Your task to perform on an android device: delete browsing data in the chrome app Image 0: 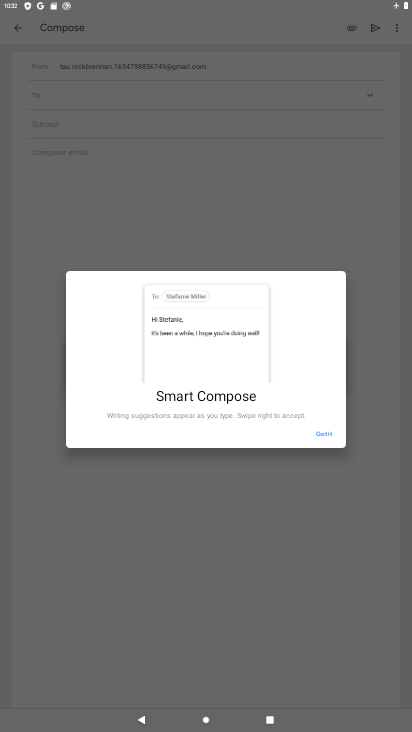
Step 0: press home button
Your task to perform on an android device: delete browsing data in the chrome app Image 1: 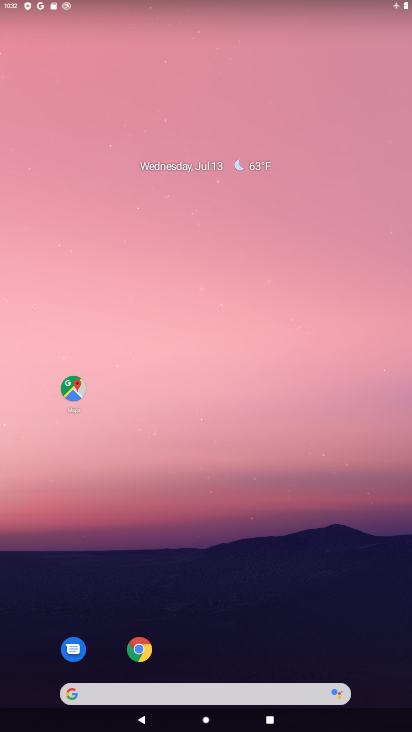
Step 1: drag from (195, 626) to (201, 316)
Your task to perform on an android device: delete browsing data in the chrome app Image 2: 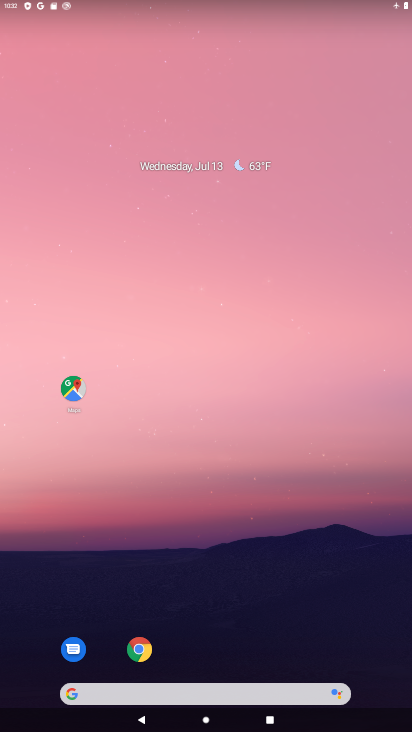
Step 2: drag from (197, 643) to (209, 165)
Your task to perform on an android device: delete browsing data in the chrome app Image 3: 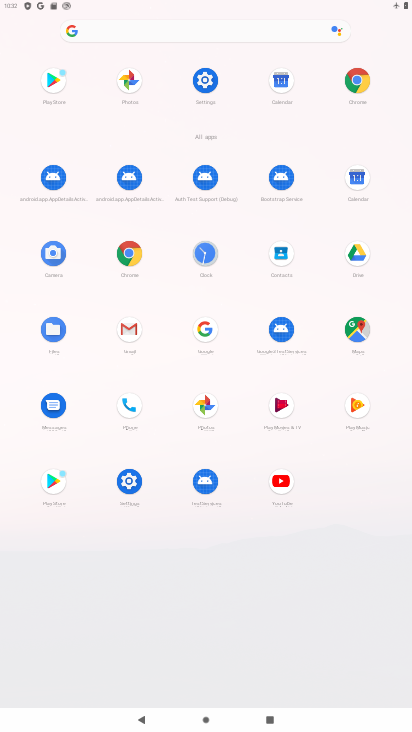
Step 3: click (138, 249)
Your task to perform on an android device: delete browsing data in the chrome app Image 4: 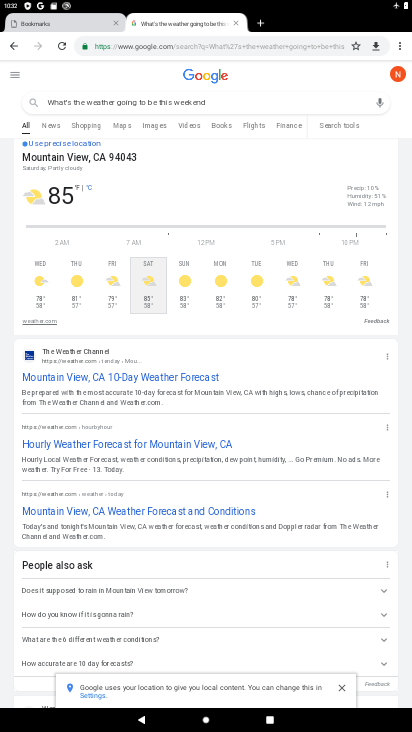
Step 4: click (397, 37)
Your task to perform on an android device: delete browsing data in the chrome app Image 5: 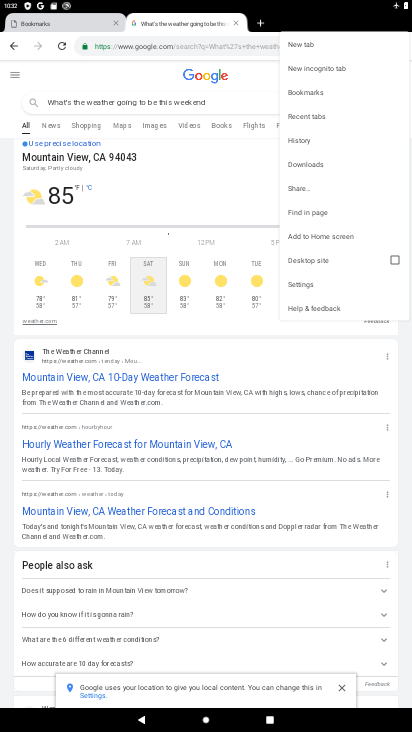
Step 5: click (329, 278)
Your task to perform on an android device: delete browsing data in the chrome app Image 6: 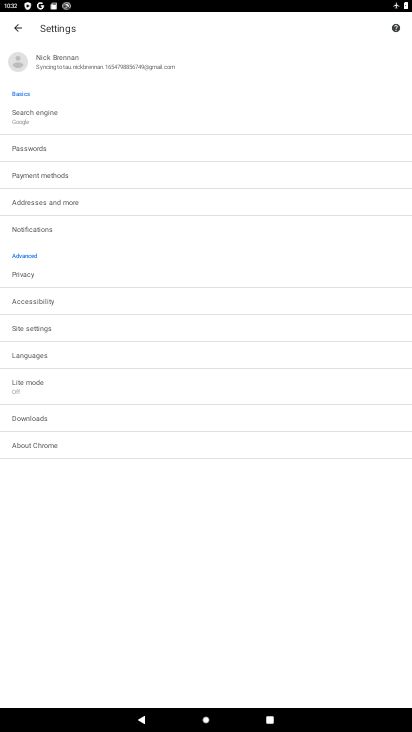
Step 6: click (39, 274)
Your task to perform on an android device: delete browsing data in the chrome app Image 7: 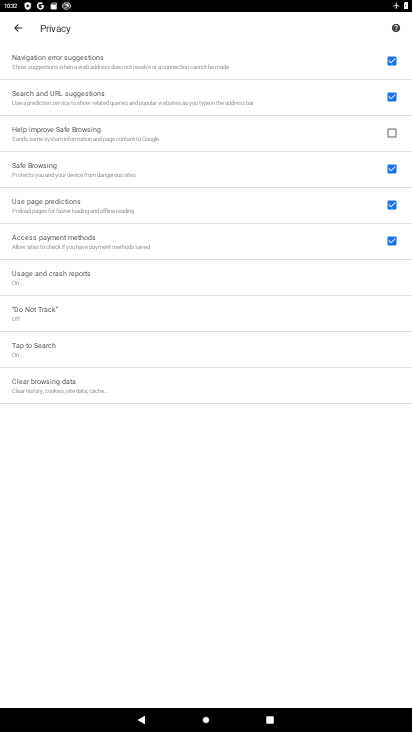
Step 7: click (99, 387)
Your task to perform on an android device: delete browsing data in the chrome app Image 8: 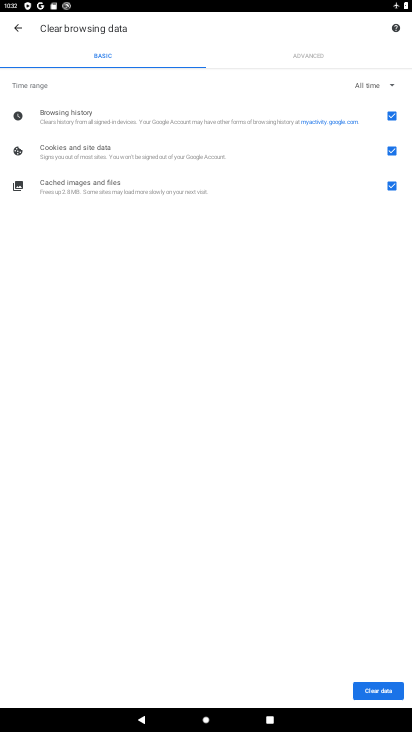
Step 8: click (391, 692)
Your task to perform on an android device: delete browsing data in the chrome app Image 9: 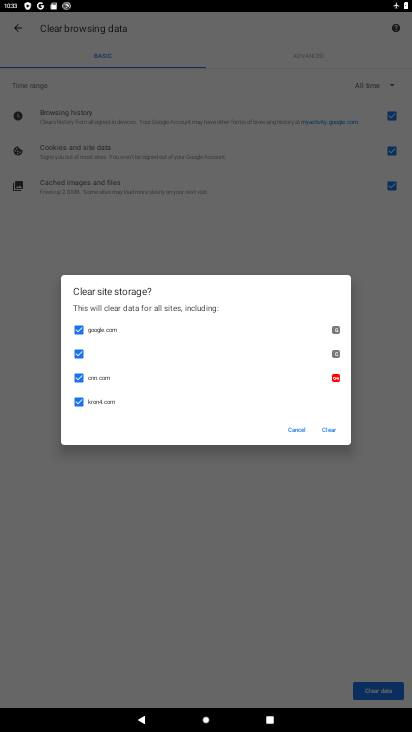
Step 9: click (333, 426)
Your task to perform on an android device: delete browsing data in the chrome app Image 10: 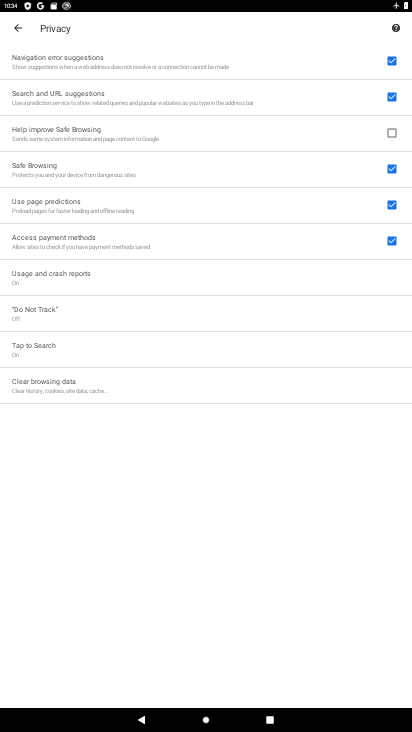
Step 10: task complete